Your task to perform on an android device: Open calendar and show me the first week of next month Image 0: 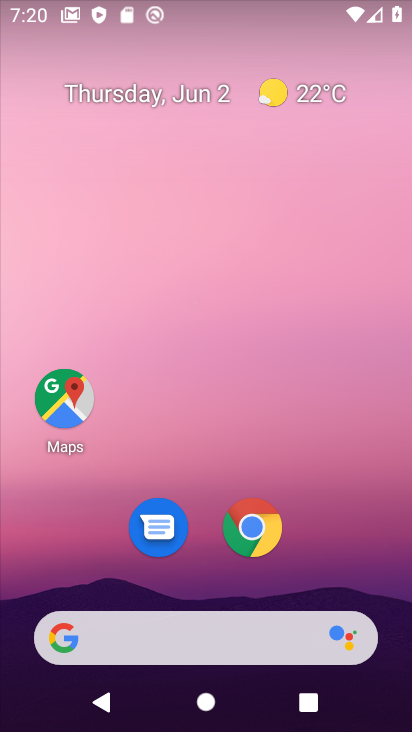
Step 0: drag from (354, 508) to (285, 1)
Your task to perform on an android device: Open calendar and show me the first week of next month Image 1: 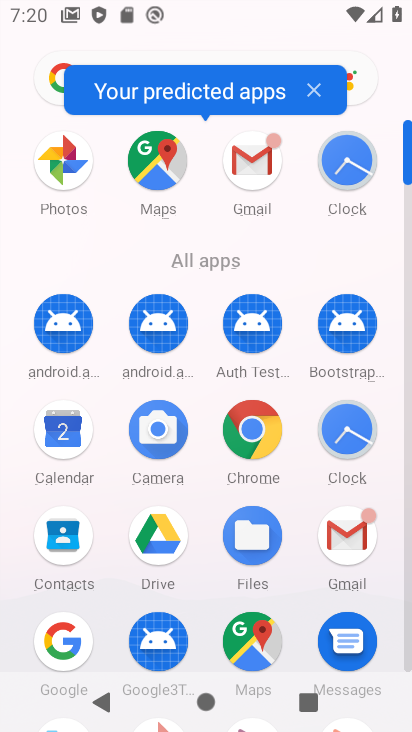
Step 1: click (68, 421)
Your task to perform on an android device: Open calendar and show me the first week of next month Image 2: 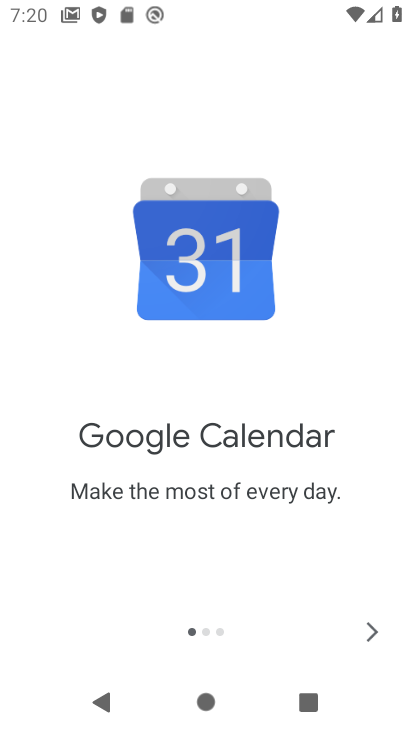
Step 2: click (374, 627)
Your task to perform on an android device: Open calendar and show me the first week of next month Image 3: 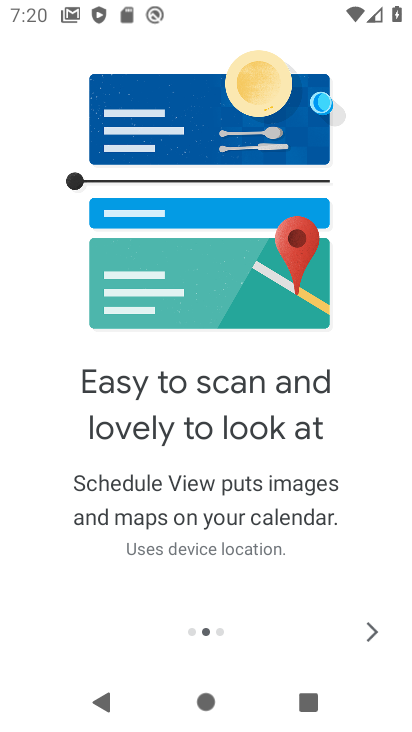
Step 3: click (374, 627)
Your task to perform on an android device: Open calendar and show me the first week of next month Image 4: 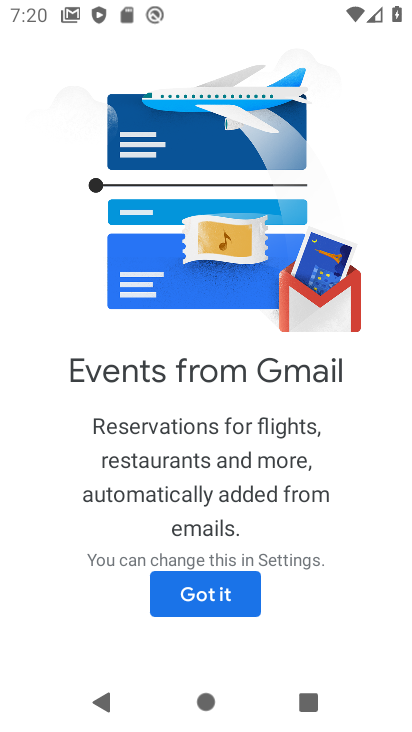
Step 4: click (374, 627)
Your task to perform on an android device: Open calendar and show me the first week of next month Image 5: 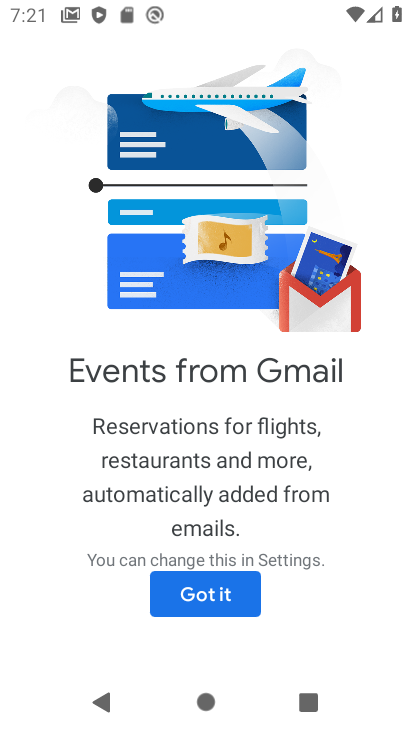
Step 5: click (236, 602)
Your task to perform on an android device: Open calendar and show me the first week of next month Image 6: 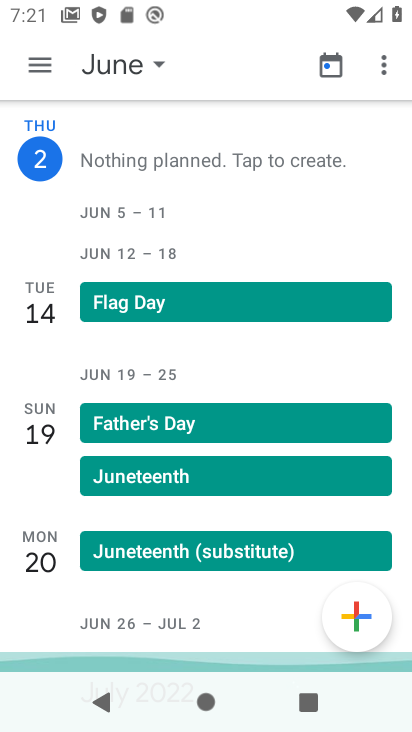
Step 6: click (40, 64)
Your task to perform on an android device: Open calendar and show me the first week of next month Image 7: 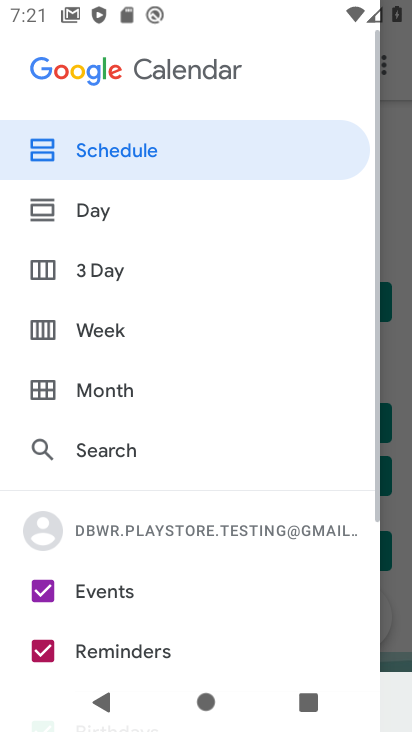
Step 7: click (130, 324)
Your task to perform on an android device: Open calendar and show me the first week of next month Image 8: 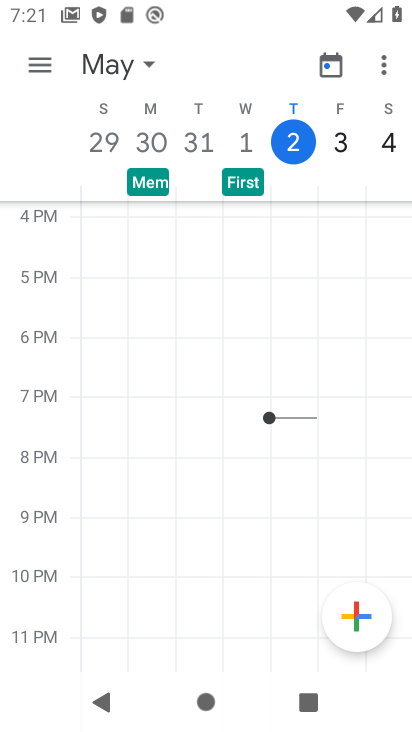
Step 8: click (140, 57)
Your task to perform on an android device: Open calendar and show me the first week of next month Image 9: 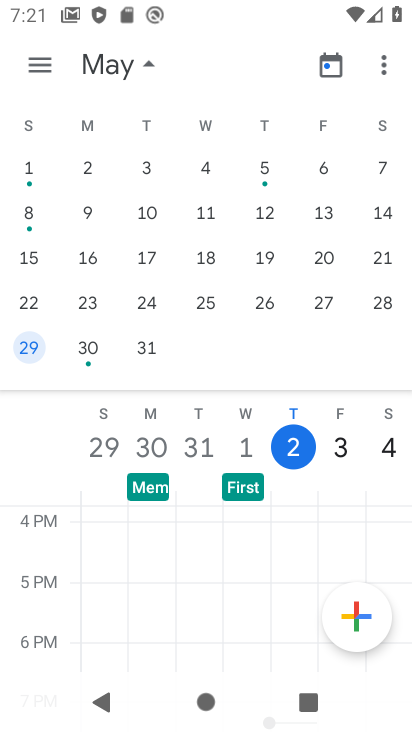
Step 9: drag from (295, 265) to (1, 240)
Your task to perform on an android device: Open calendar and show me the first week of next month Image 10: 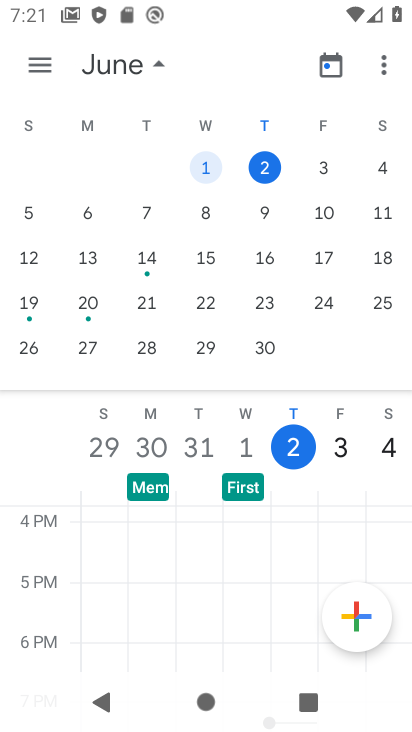
Step 10: drag from (334, 275) to (10, 260)
Your task to perform on an android device: Open calendar and show me the first week of next month Image 11: 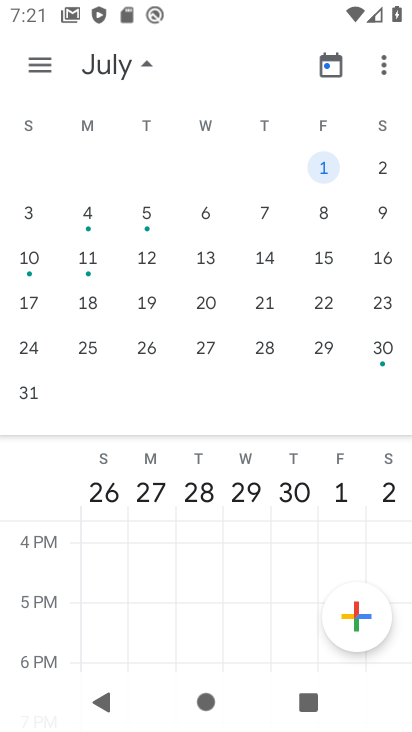
Step 11: click (86, 219)
Your task to perform on an android device: Open calendar and show me the first week of next month Image 12: 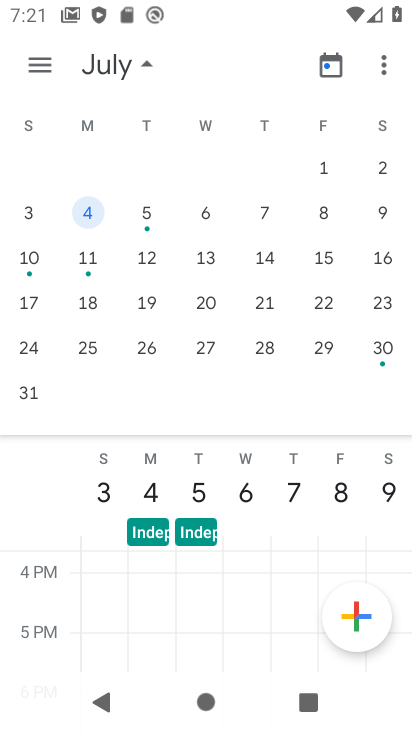
Step 12: task complete